Your task to perform on an android device: Is it going to rain today? Image 0: 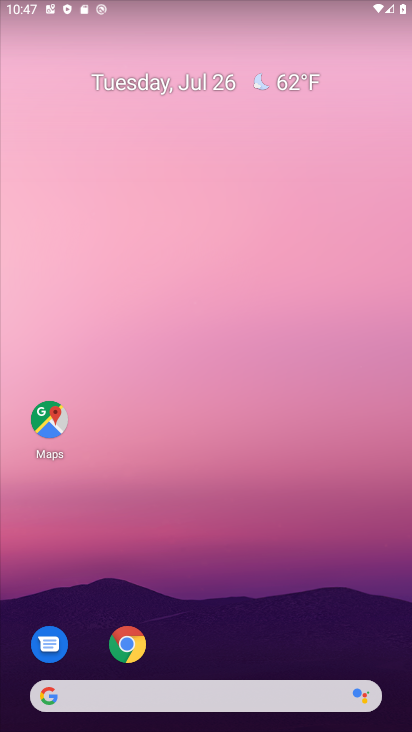
Step 0: click (240, 710)
Your task to perform on an android device: Is it going to rain today? Image 1: 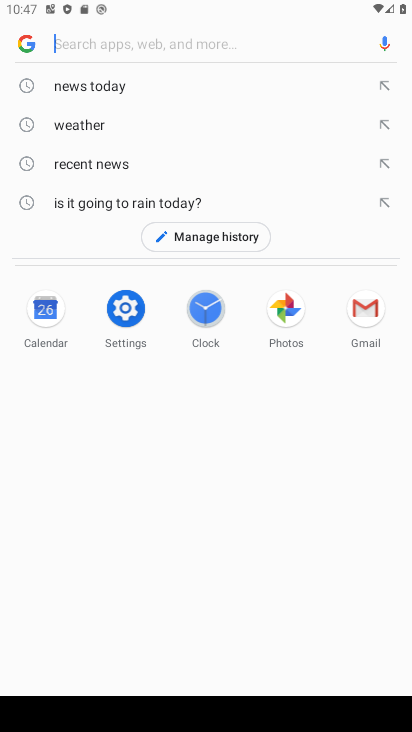
Step 1: click (123, 120)
Your task to perform on an android device: Is it going to rain today? Image 2: 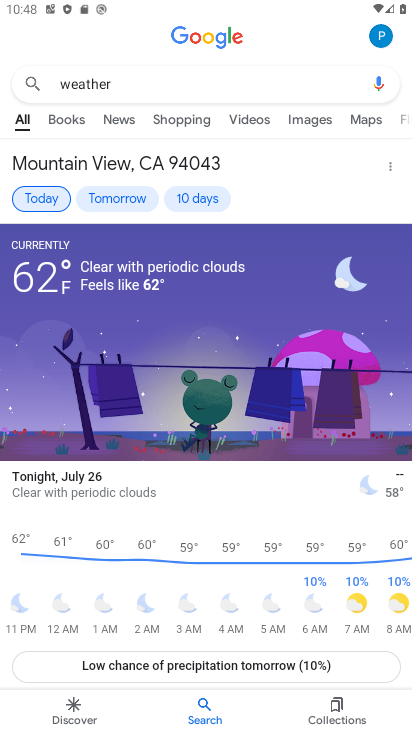
Step 2: task complete